Your task to perform on an android device: show emergency info Image 0: 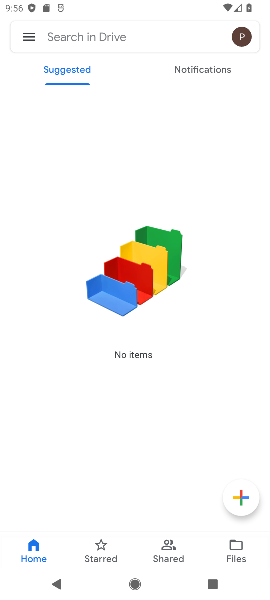
Step 0: press home button
Your task to perform on an android device: show emergency info Image 1: 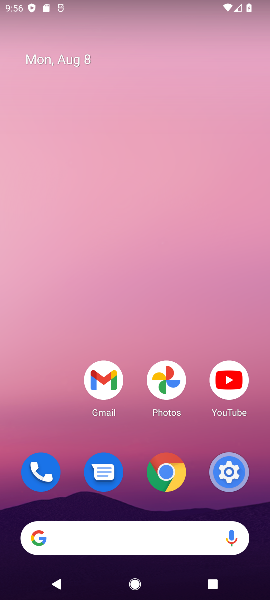
Step 1: click (227, 475)
Your task to perform on an android device: show emergency info Image 2: 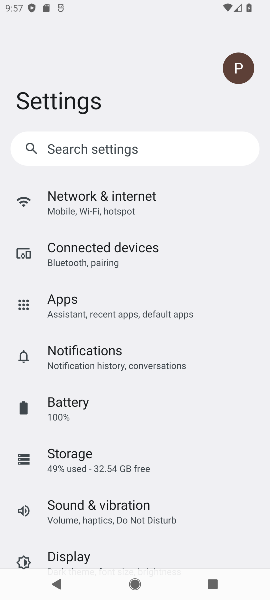
Step 2: drag from (179, 540) to (147, 81)
Your task to perform on an android device: show emergency info Image 3: 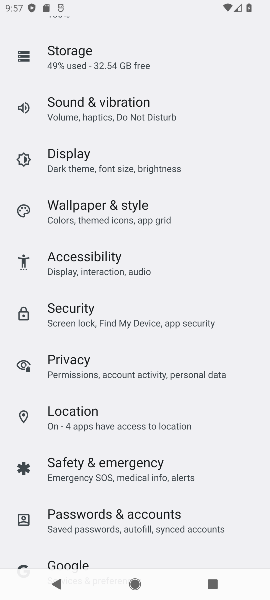
Step 3: drag from (159, 508) to (151, 107)
Your task to perform on an android device: show emergency info Image 4: 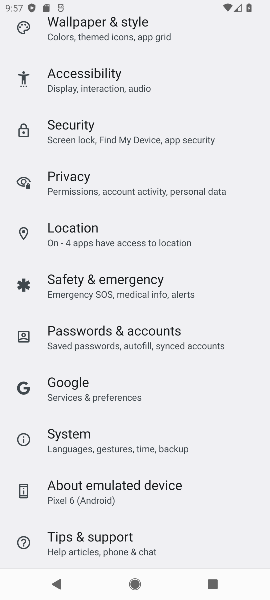
Step 4: click (102, 296)
Your task to perform on an android device: show emergency info Image 5: 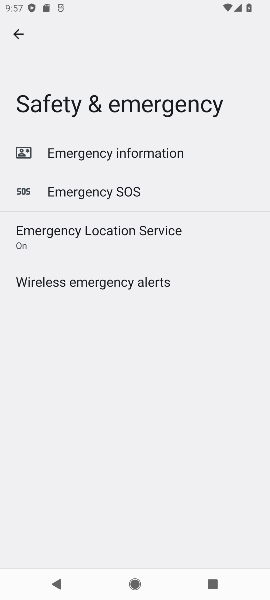
Step 5: click (101, 157)
Your task to perform on an android device: show emergency info Image 6: 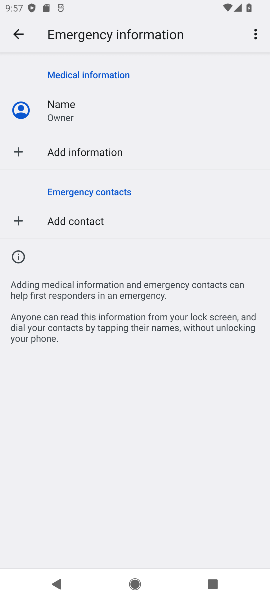
Step 6: task complete